Your task to perform on an android device: Open Chrome and go to settings Image 0: 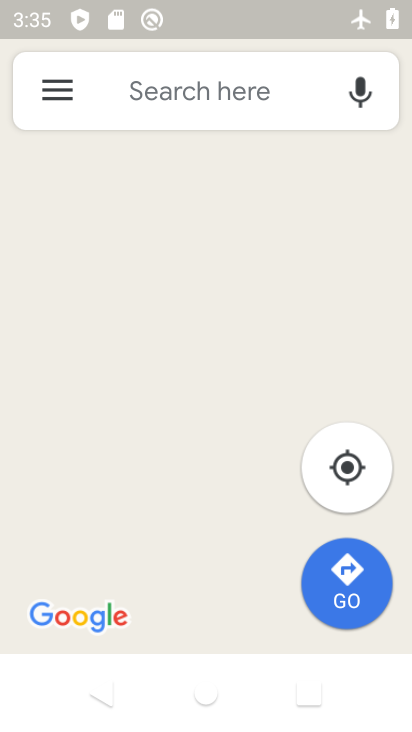
Step 0: press home button
Your task to perform on an android device: Open Chrome and go to settings Image 1: 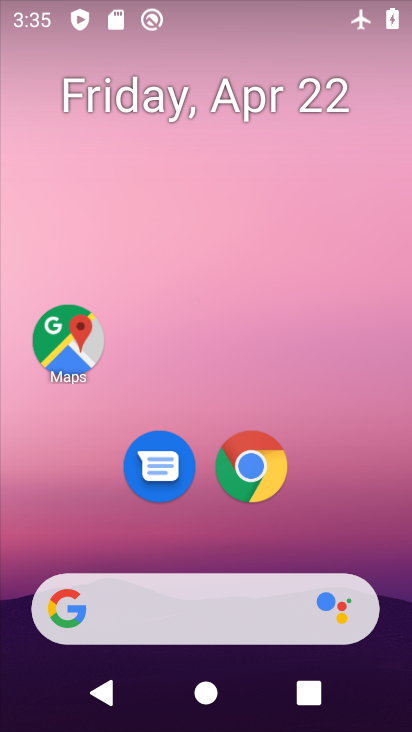
Step 1: click (251, 469)
Your task to perform on an android device: Open Chrome and go to settings Image 2: 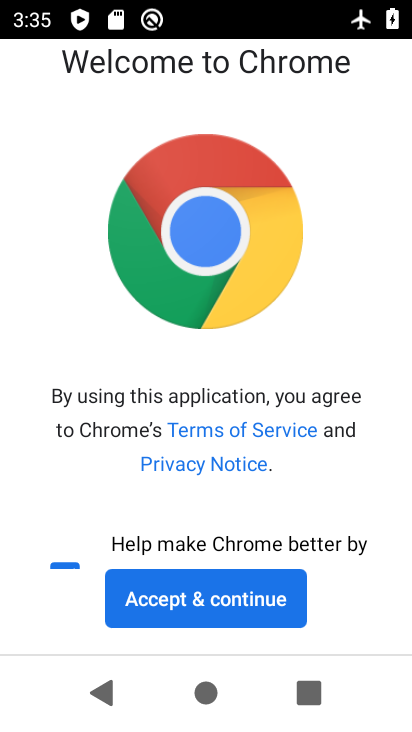
Step 2: click (190, 598)
Your task to perform on an android device: Open Chrome and go to settings Image 3: 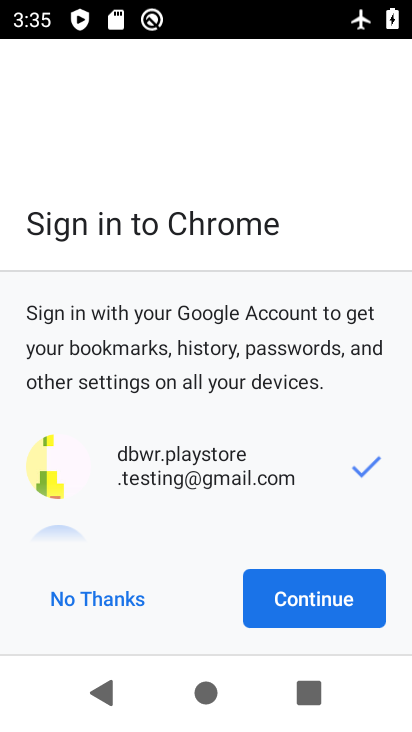
Step 3: click (310, 598)
Your task to perform on an android device: Open Chrome and go to settings Image 4: 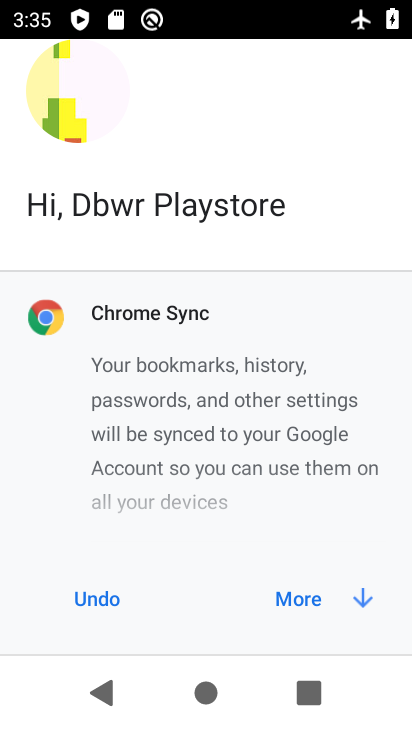
Step 4: click (310, 598)
Your task to perform on an android device: Open Chrome and go to settings Image 5: 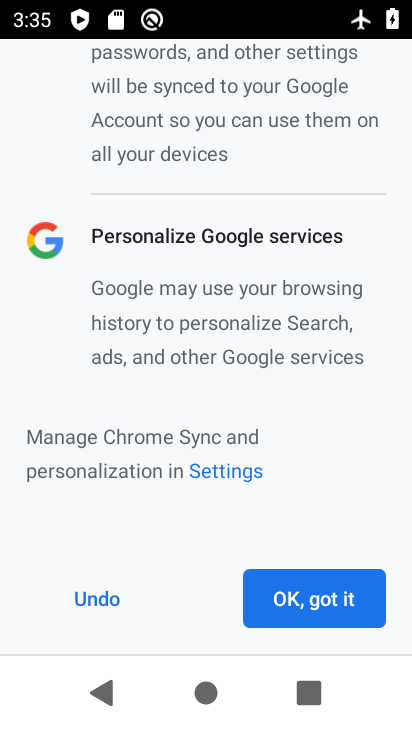
Step 5: click (310, 598)
Your task to perform on an android device: Open Chrome and go to settings Image 6: 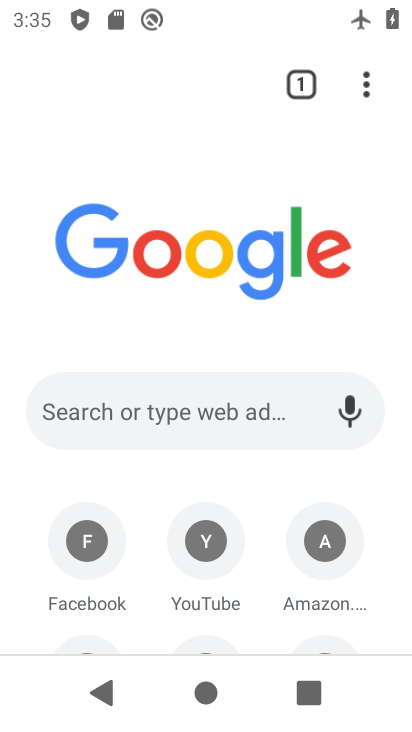
Step 6: click (365, 91)
Your task to perform on an android device: Open Chrome and go to settings Image 7: 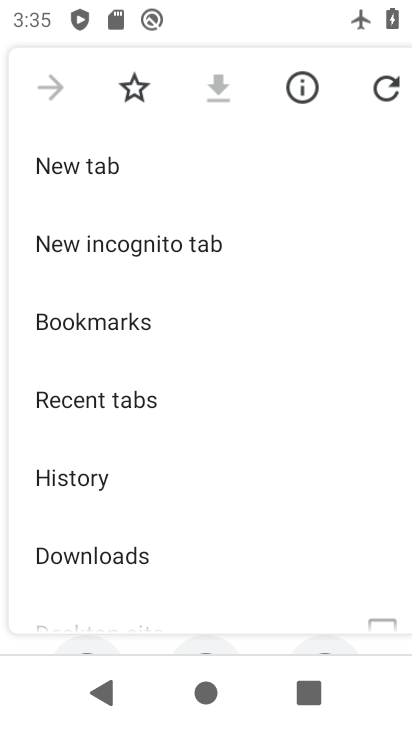
Step 7: drag from (182, 524) to (262, 190)
Your task to perform on an android device: Open Chrome and go to settings Image 8: 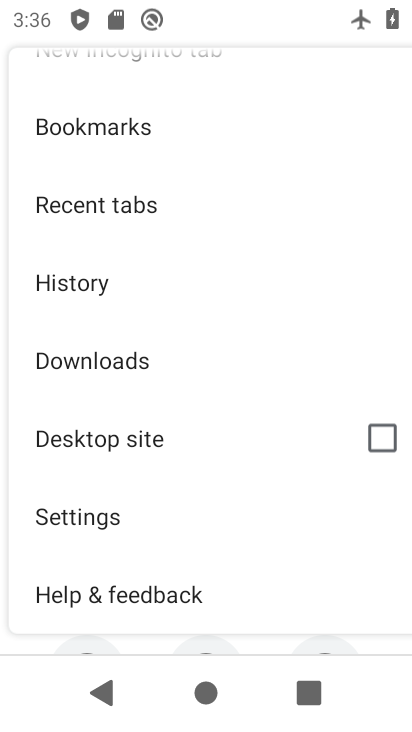
Step 8: click (68, 521)
Your task to perform on an android device: Open Chrome and go to settings Image 9: 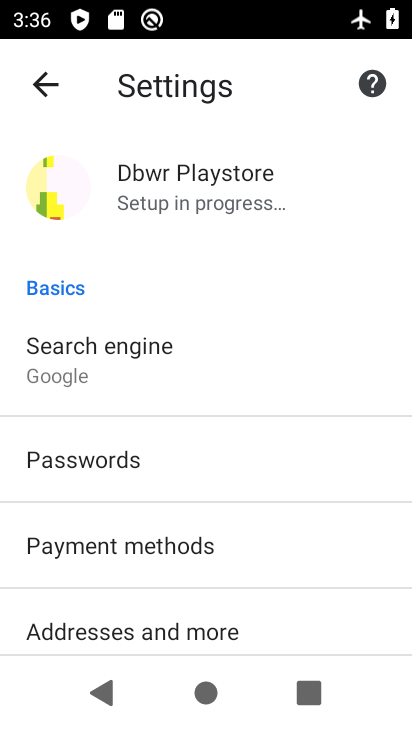
Step 9: task complete